Your task to perform on an android device: change the clock display to digital Image 0: 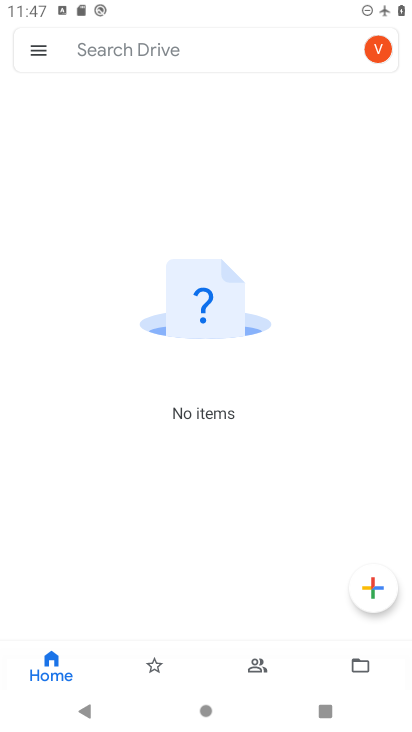
Step 0: press home button
Your task to perform on an android device: change the clock display to digital Image 1: 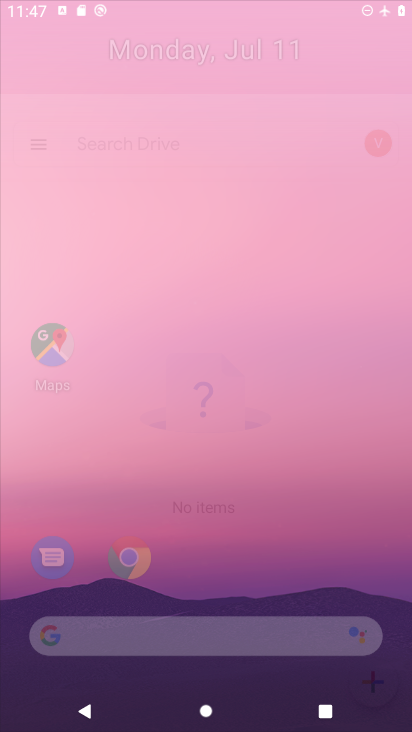
Step 1: drag from (384, 696) to (233, 83)
Your task to perform on an android device: change the clock display to digital Image 2: 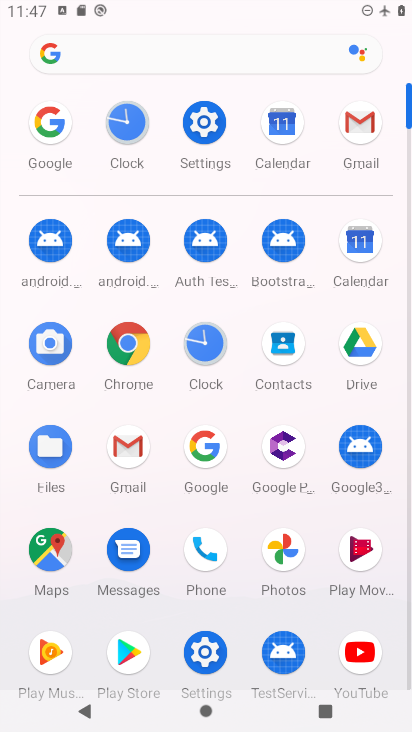
Step 2: click (192, 350)
Your task to perform on an android device: change the clock display to digital Image 3: 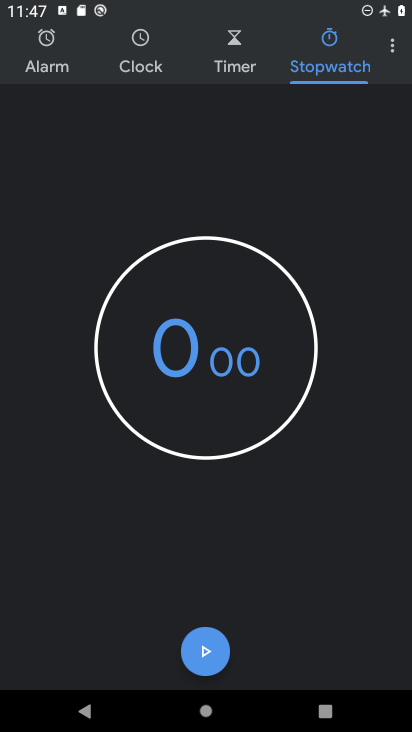
Step 3: click (393, 43)
Your task to perform on an android device: change the clock display to digital Image 4: 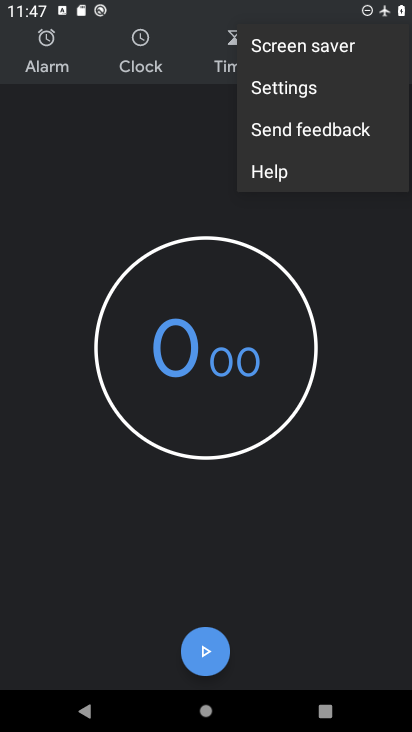
Step 4: click (305, 87)
Your task to perform on an android device: change the clock display to digital Image 5: 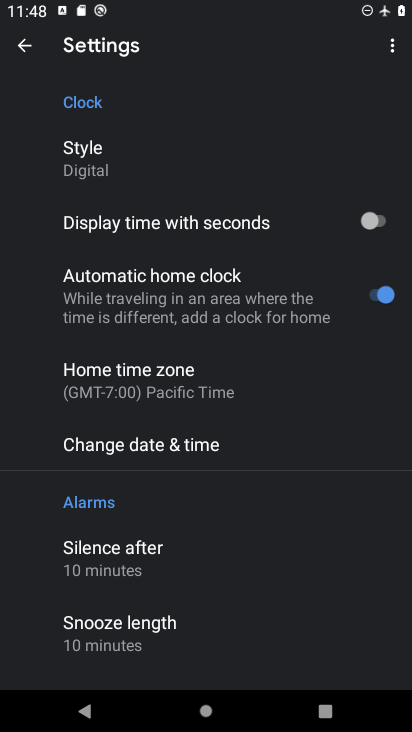
Step 5: click (102, 165)
Your task to perform on an android device: change the clock display to digital Image 6: 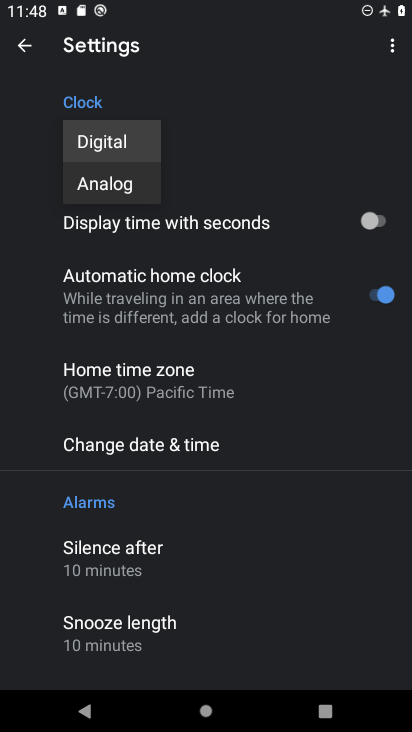
Step 6: click (119, 145)
Your task to perform on an android device: change the clock display to digital Image 7: 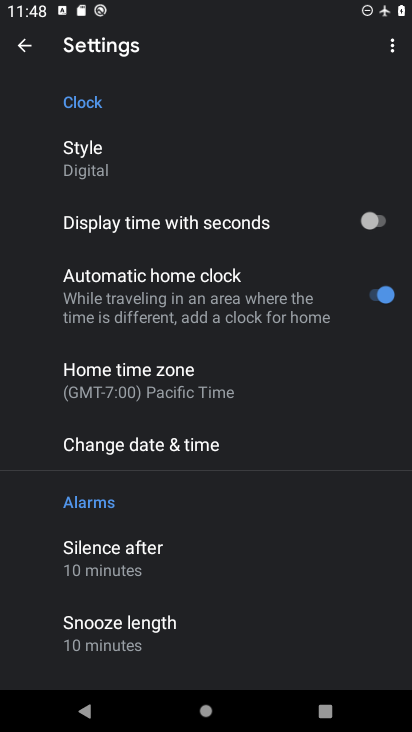
Step 7: task complete